Your task to perform on an android device: choose inbox layout in the gmail app Image 0: 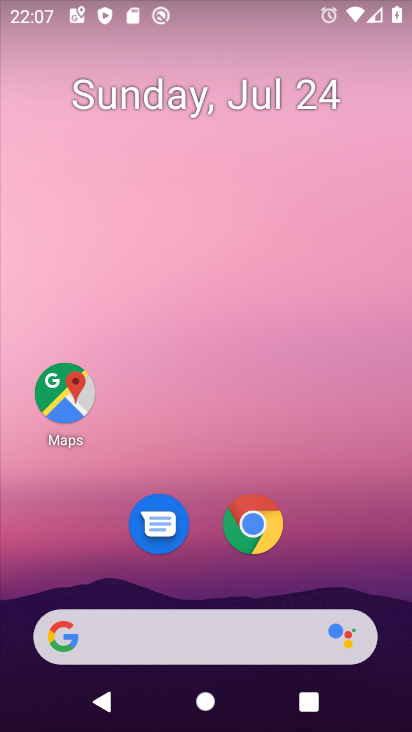
Step 0: press home button
Your task to perform on an android device: choose inbox layout in the gmail app Image 1: 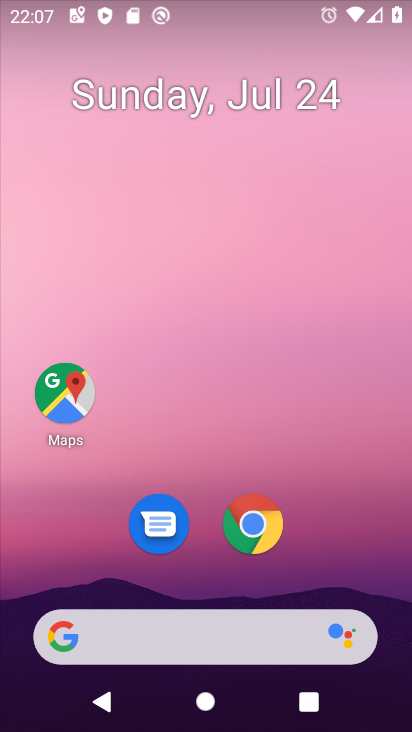
Step 1: drag from (202, 633) to (288, 106)
Your task to perform on an android device: choose inbox layout in the gmail app Image 2: 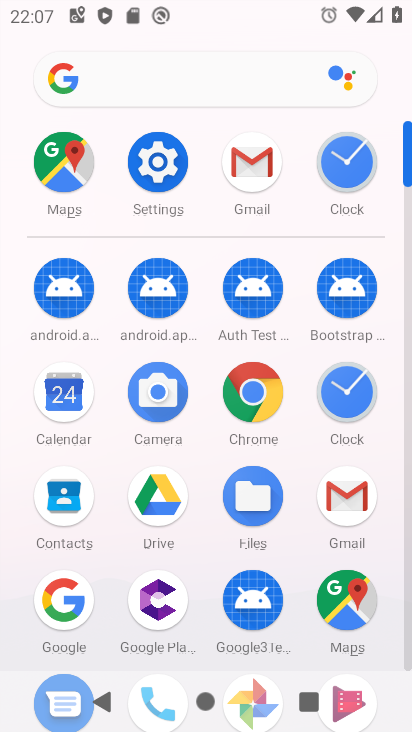
Step 2: click (249, 168)
Your task to perform on an android device: choose inbox layout in the gmail app Image 3: 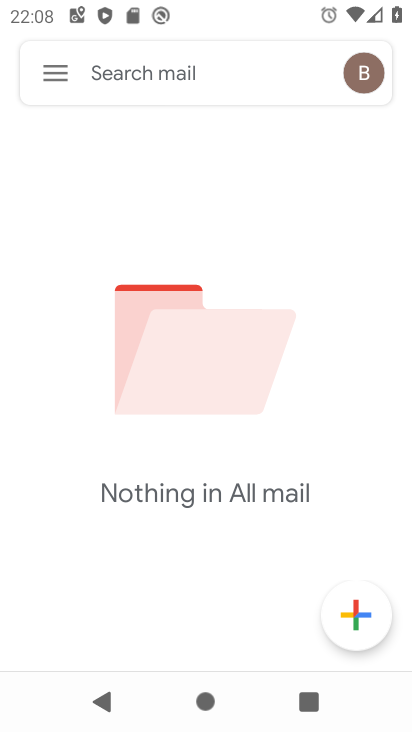
Step 3: click (54, 81)
Your task to perform on an android device: choose inbox layout in the gmail app Image 4: 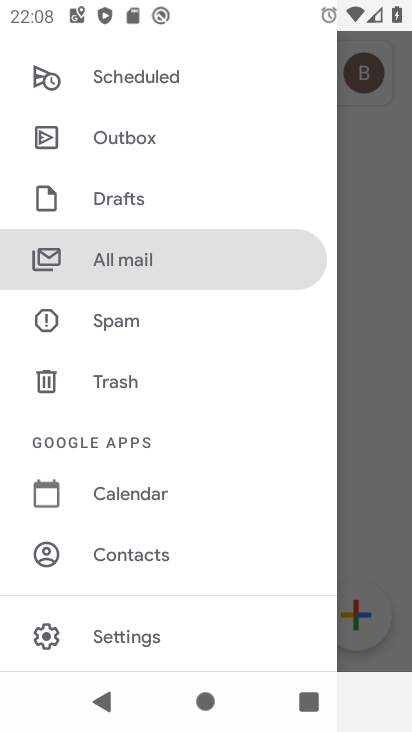
Step 4: click (163, 543)
Your task to perform on an android device: choose inbox layout in the gmail app Image 5: 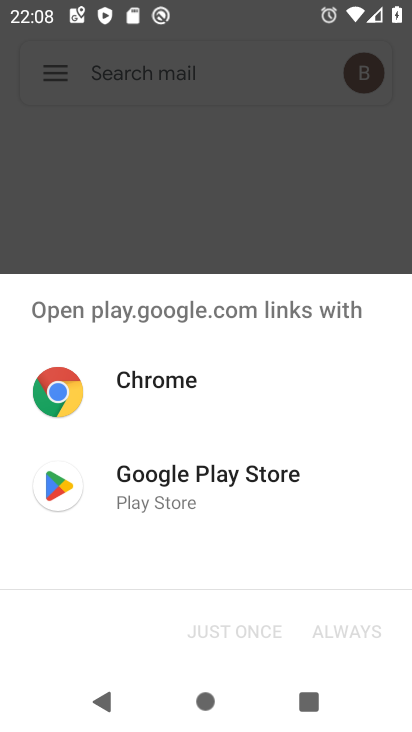
Step 5: click (47, 63)
Your task to perform on an android device: choose inbox layout in the gmail app Image 6: 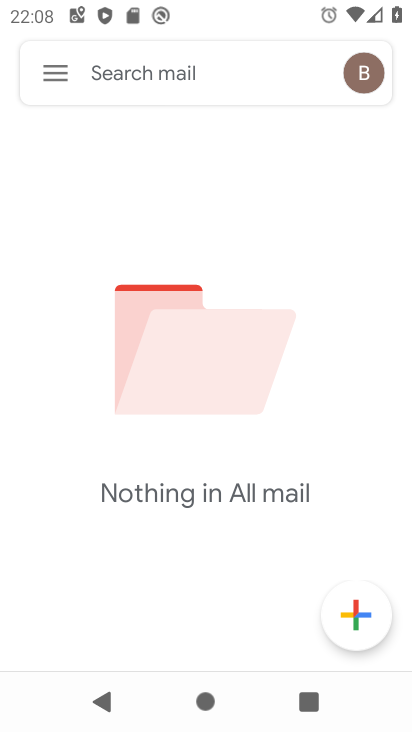
Step 6: click (56, 74)
Your task to perform on an android device: choose inbox layout in the gmail app Image 7: 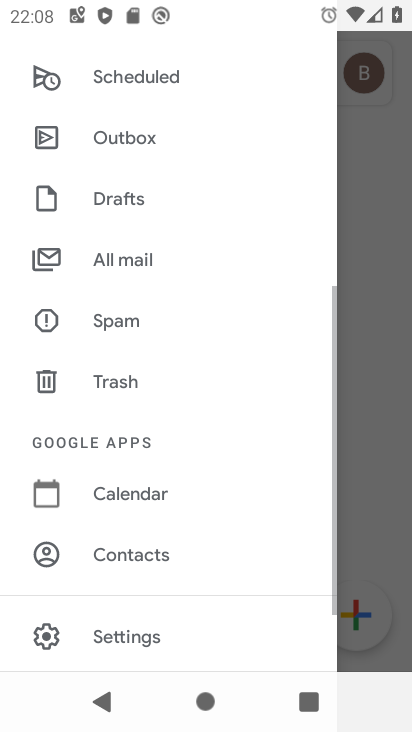
Step 7: click (137, 633)
Your task to perform on an android device: choose inbox layout in the gmail app Image 8: 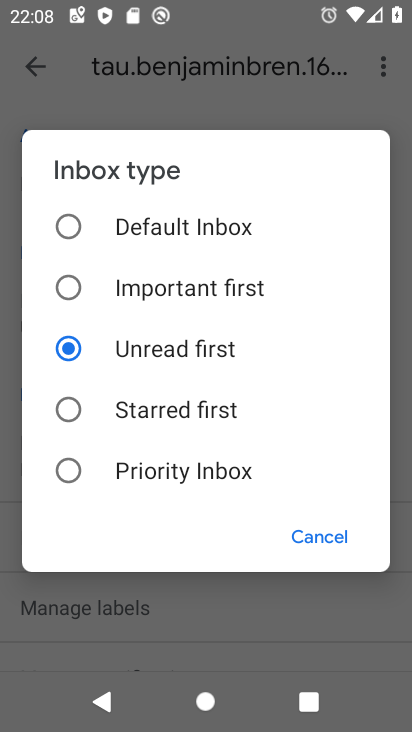
Step 8: click (74, 227)
Your task to perform on an android device: choose inbox layout in the gmail app Image 9: 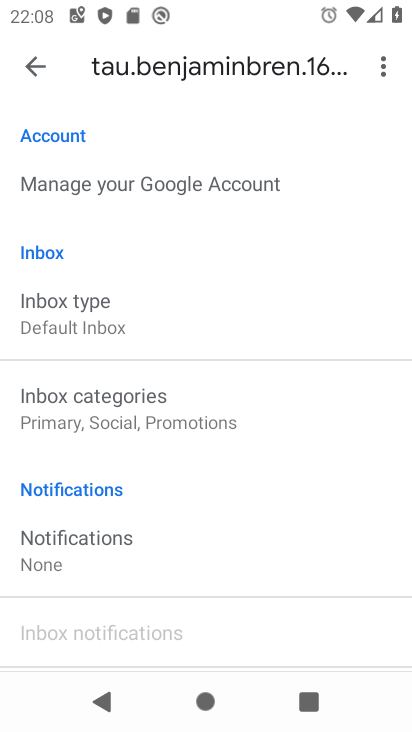
Step 9: task complete